Your task to perform on an android device: delete the emails in spam in the gmail app Image 0: 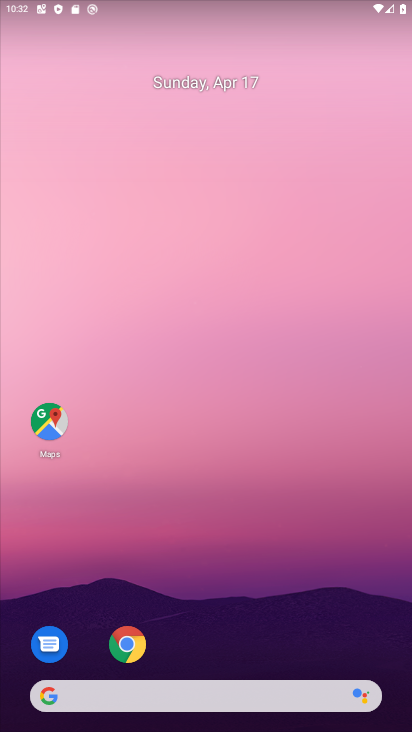
Step 0: drag from (229, 575) to (350, 1)
Your task to perform on an android device: delete the emails in spam in the gmail app Image 1: 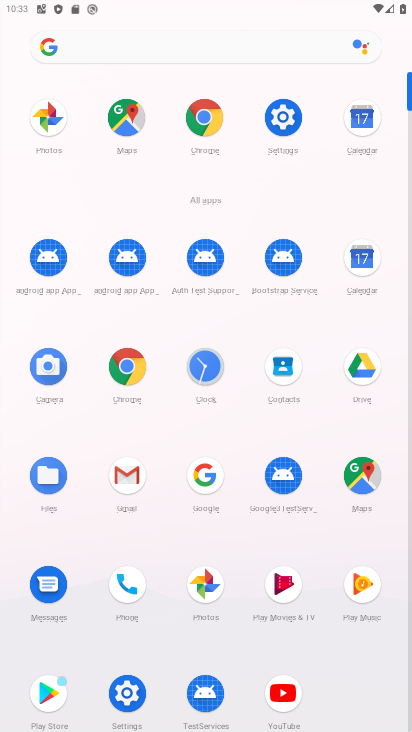
Step 1: click (135, 483)
Your task to perform on an android device: delete the emails in spam in the gmail app Image 2: 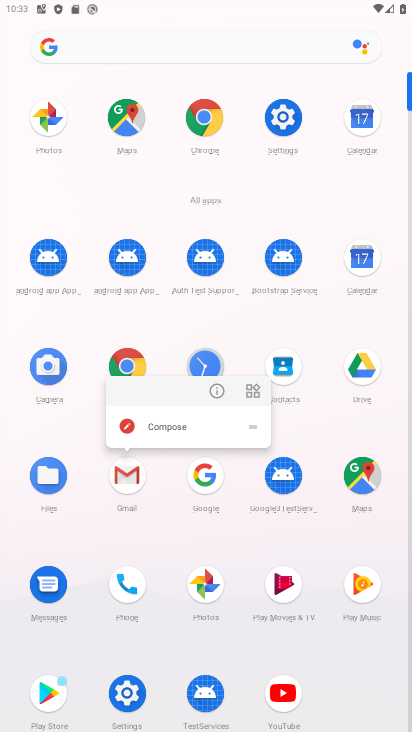
Step 2: click (129, 479)
Your task to perform on an android device: delete the emails in spam in the gmail app Image 3: 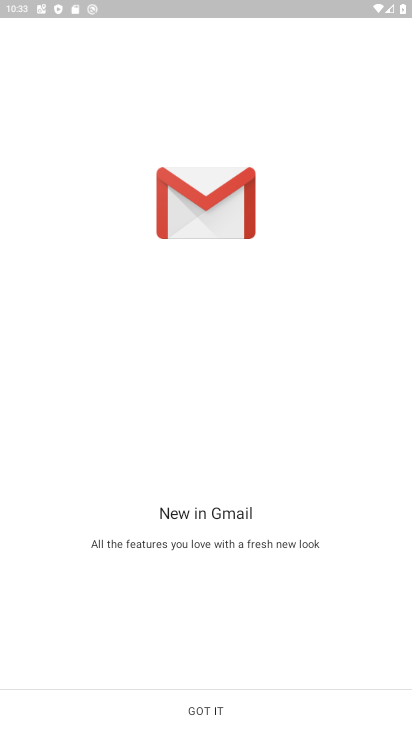
Step 3: click (228, 705)
Your task to perform on an android device: delete the emails in spam in the gmail app Image 4: 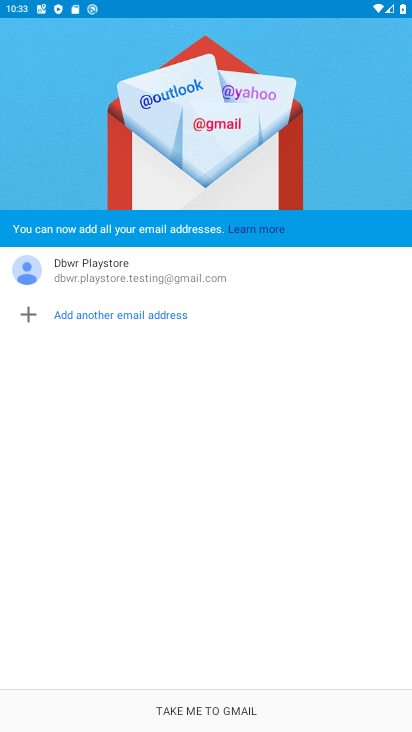
Step 4: click (227, 703)
Your task to perform on an android device: delete the emails in spam in the gmail app Image 5: 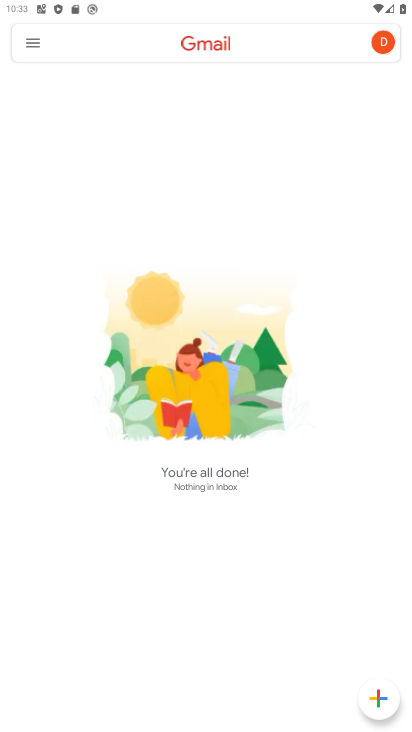
Step 5: click (27, 37)
Your task to perform on an android device: delete the emails in spam in the gmail app Image 6: 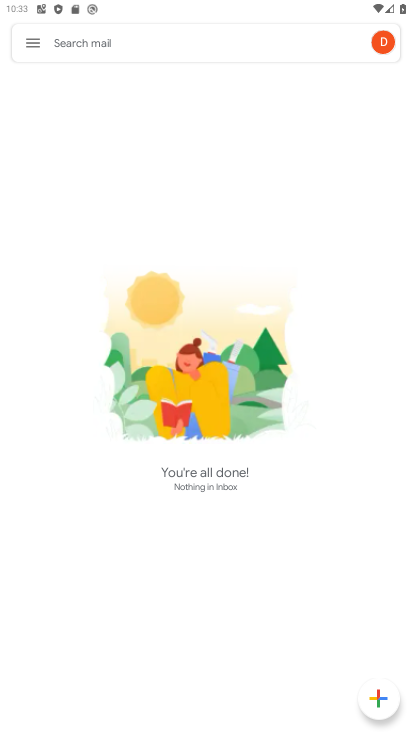
Step 6: click (36, 40)
Your task to perform on an android device: delete the emails in spam in the gmail app Image 7: 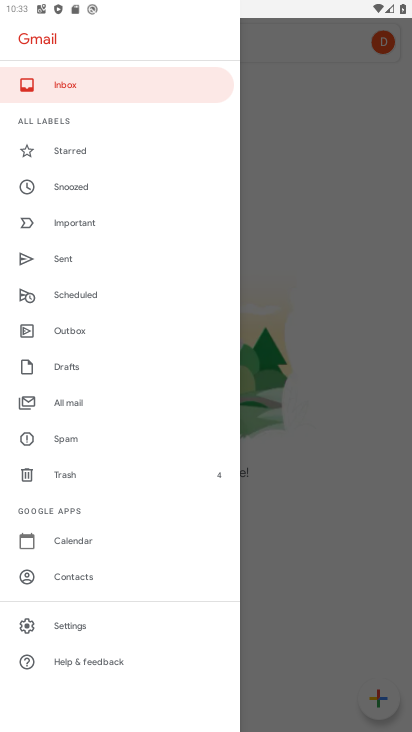
Step 7: click (74, 437)
Your task to perform on an android device: delete the emails in spam in the gmail app Image 8: 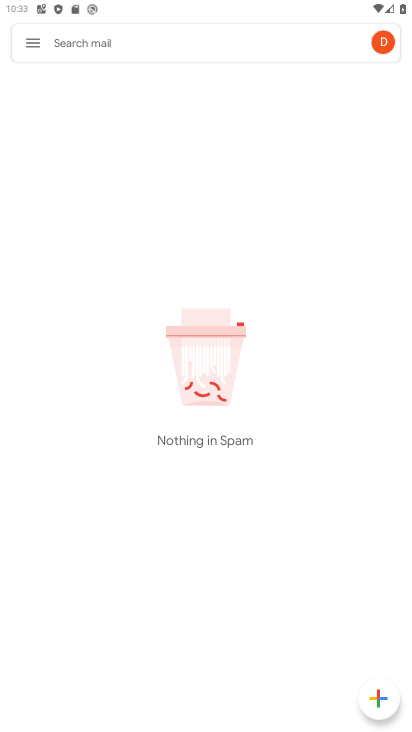
Step 8: task complete